Your task to perform on an android device: Open the phone app and click the voicemail tab. Image 0: 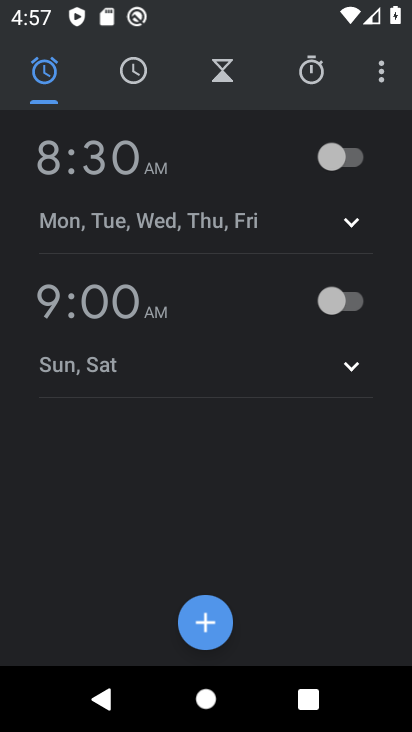
Step 0: press home button
Your task to perform on an android device: Open the phone app and click the voicemail tab. Image 1: 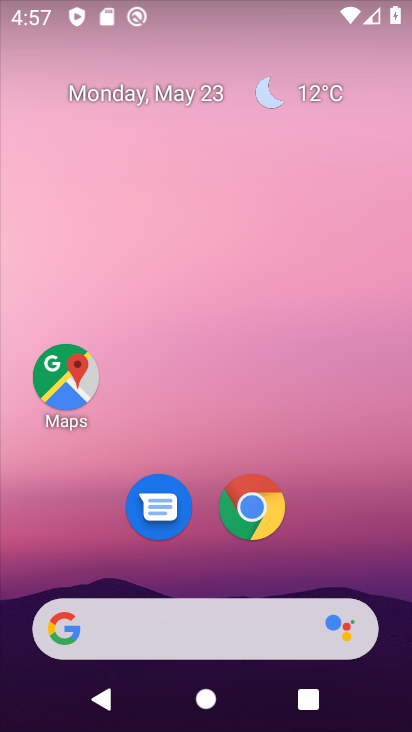
Step 1: drag from (64, 518) to (209, 180)
Your task to perform on an android device: Open the phone app and click the voicemail tab. Image 2: 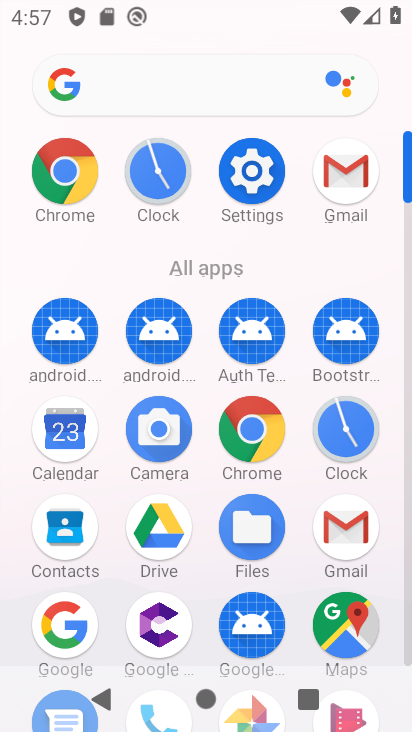
Step 2: drag from (24, 464) to (170, 185)
Your task to perform on an android device: Open the phone app and click the voicemail tab. Image 3: 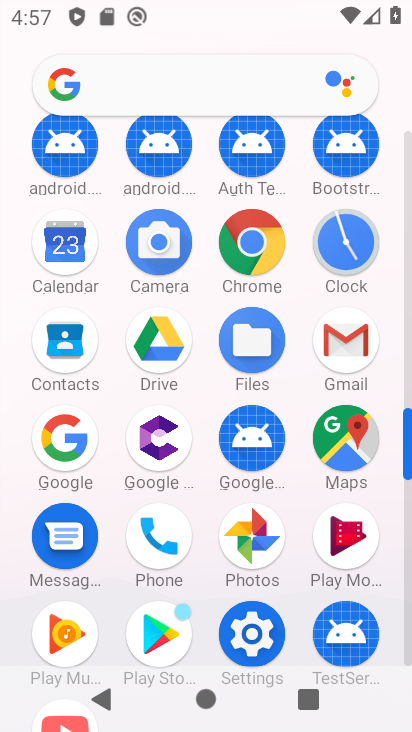
Step 3: click (154, 538)
Your task to perform on an android device: Open the phone app and click the voicemail tab. Image 4: 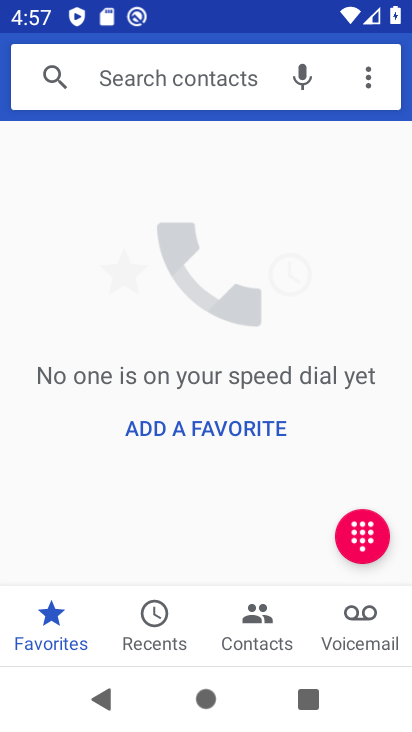
Step 4: click (346, 624)
Your task to perform on an android device: Open the phone app and click the voicemail tab. Image 5: 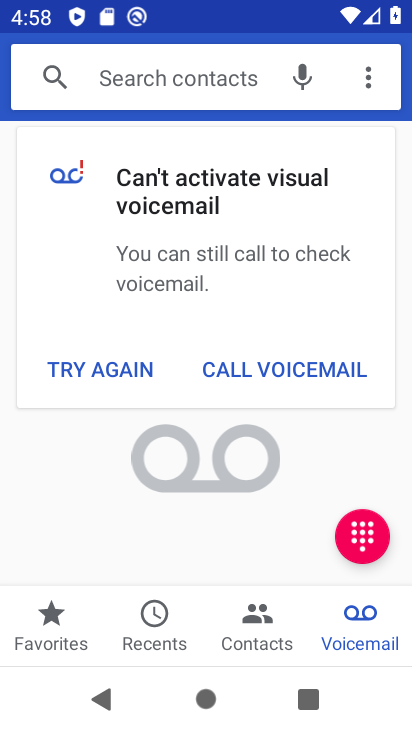
Step 5: task complete